Your task to perform on an android device: open the mobile data screen to see how much data has been used Image 0: 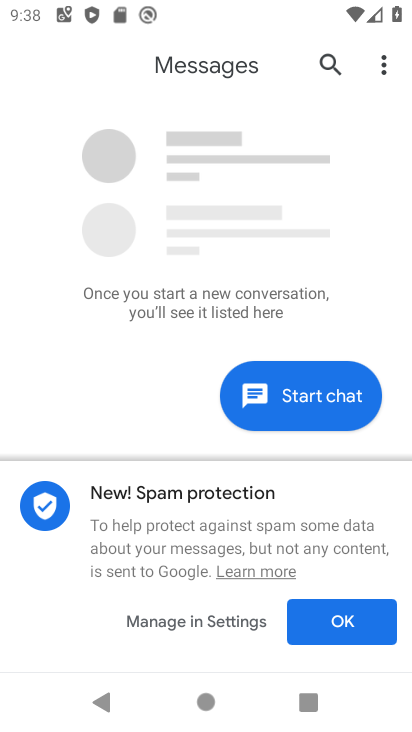
Step 0: press home button
Your task to perform on an android device: open the mobile data screen to see how much data has been used Image 1: 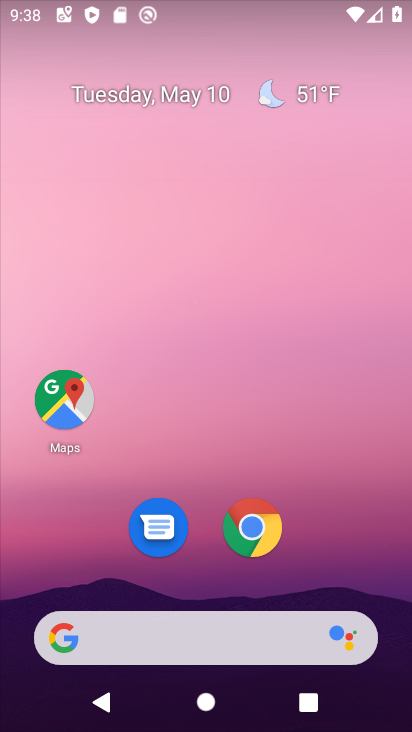
Step 1: drag from (220, 723) to (237, 181)
Your task to perform on an android device: open the mobile data screen to see how much data has been used Image 2: 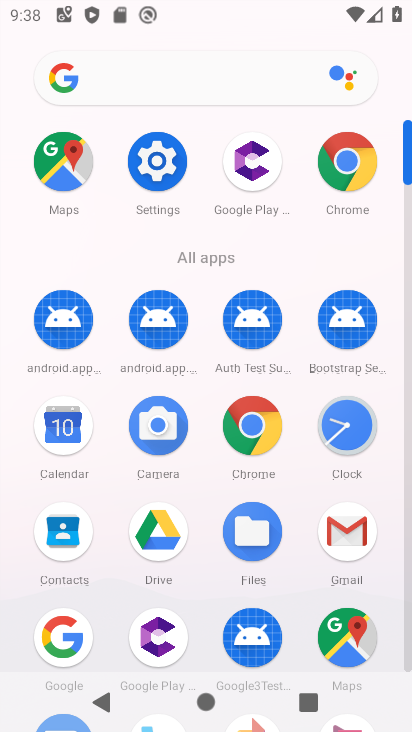
Step 2: click (164, 170)
Your task to perform on an android device: open the mobile data screen to see how much data has been used Image 3: 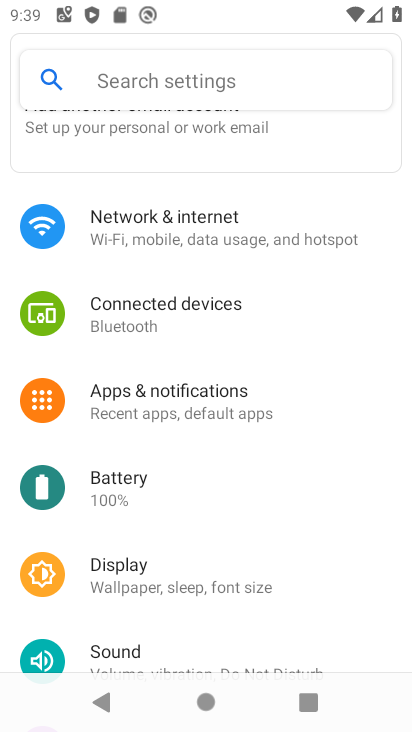
Step 3: click (157, 238)
Your task to perform on an android device: open the mobile data screen to see how much data has been used Image 4: 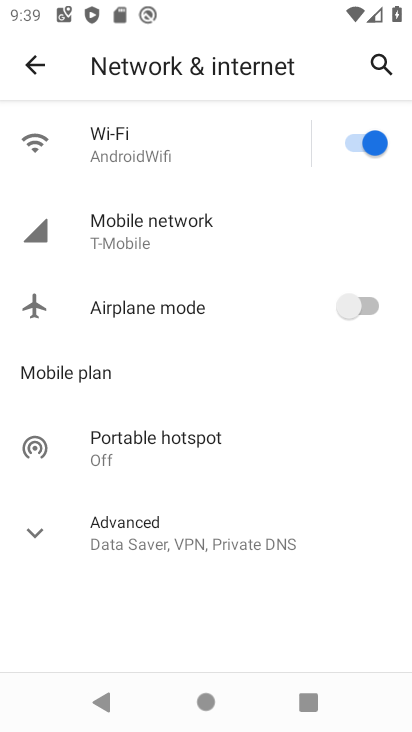
Step 4: click (145, 226)
Your task to perform on an android device: open the mobile data screen to see how much data has been used Image 5: 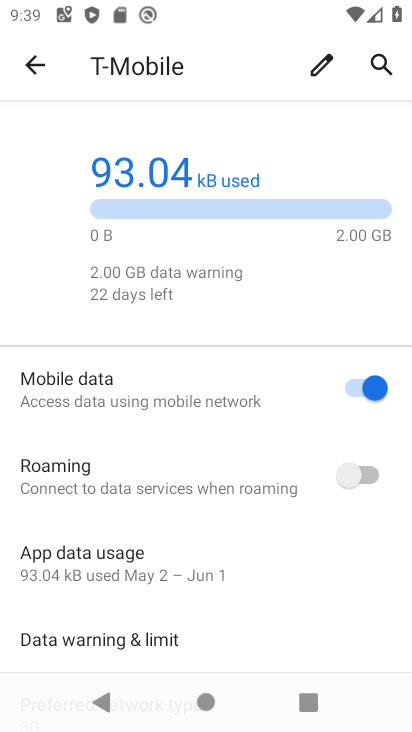
Step 5: click (99, 558)
Your task to perform on an android device: open the mobile data screen to see how much data has been used Image 6: 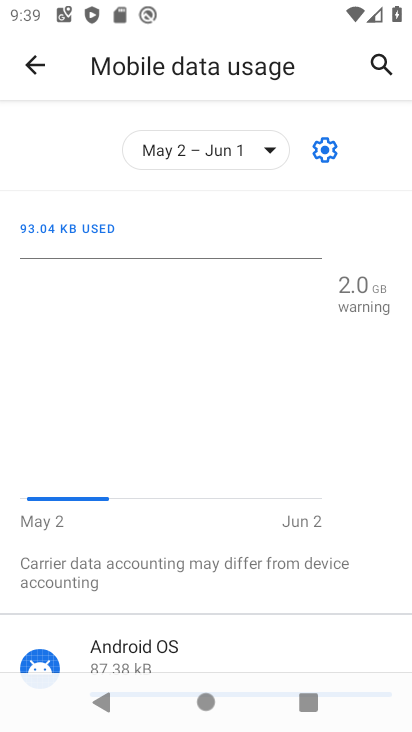
Step 6: task complete